Your task to perform on an android device: install app "McDonald's" Image 0: 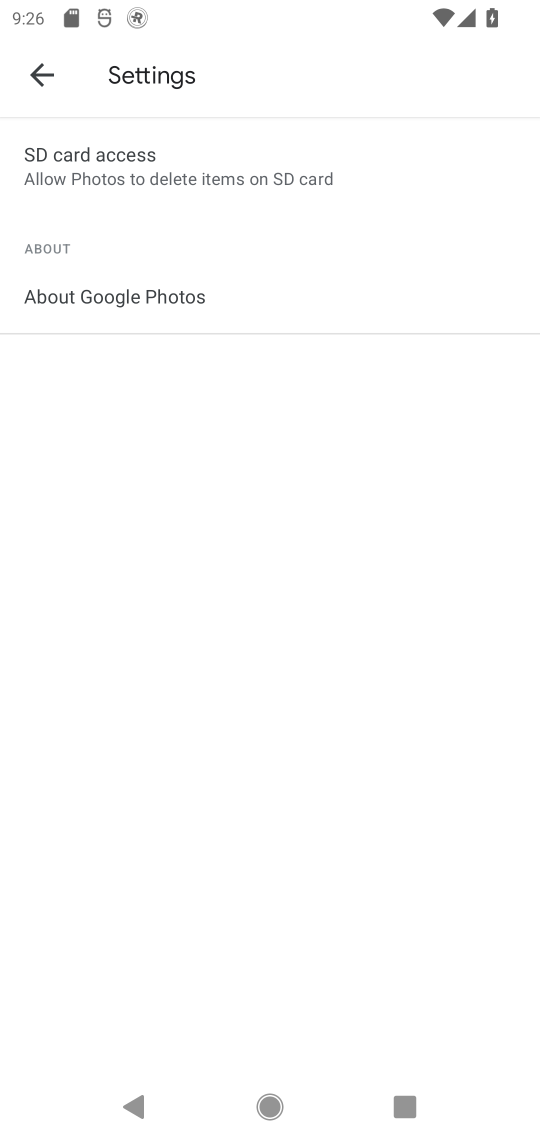
Step 0: press home button
Your task to perform on an android device: install app "McDonald's" Image 1: 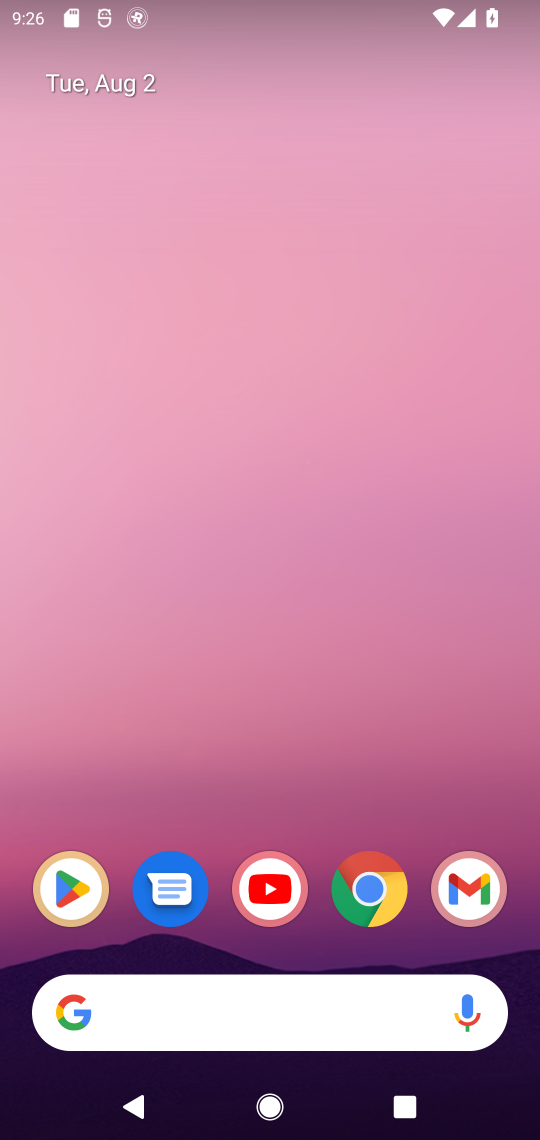
Step 1: click (68, 880)
Your task to perform on an android device: install app "McDonald's" Image 2: 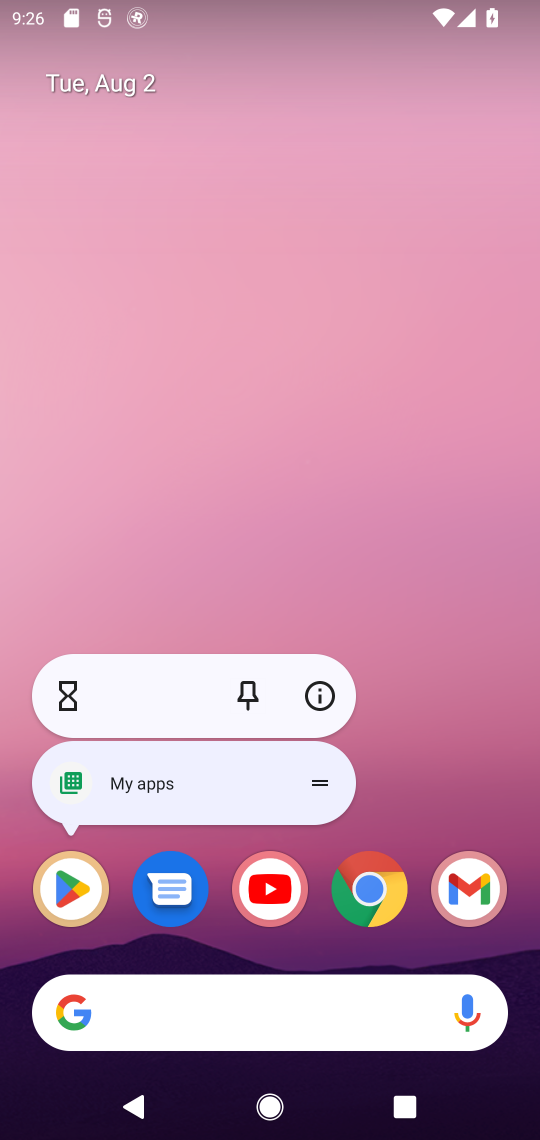
Step 2: click (65, 898)
Your task to perform on an android device: install app "McDonald's" Image 3: 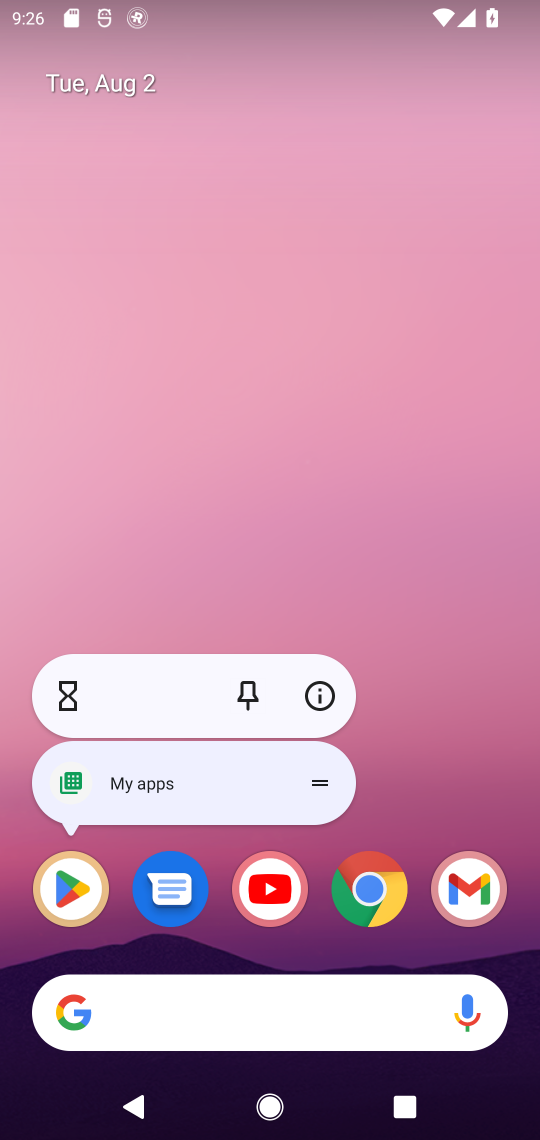
Step 3: click (65, 899)
Your task to perform on an android device: install app "McDonald's" Image 4: 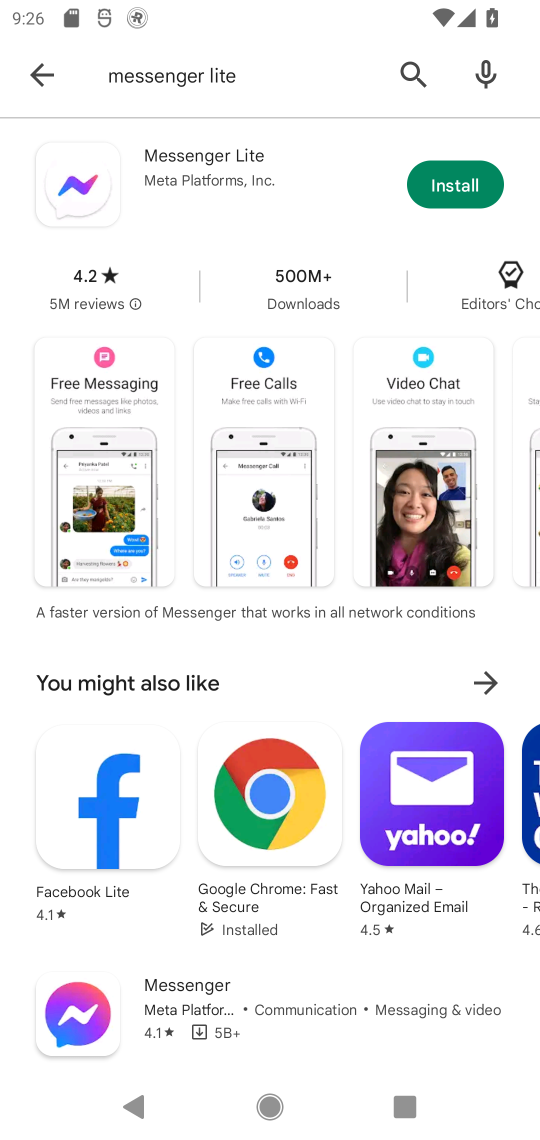
Step 4: click (415, 65)
Your task to perform on an android device: install app "McDonald's" Image 5: 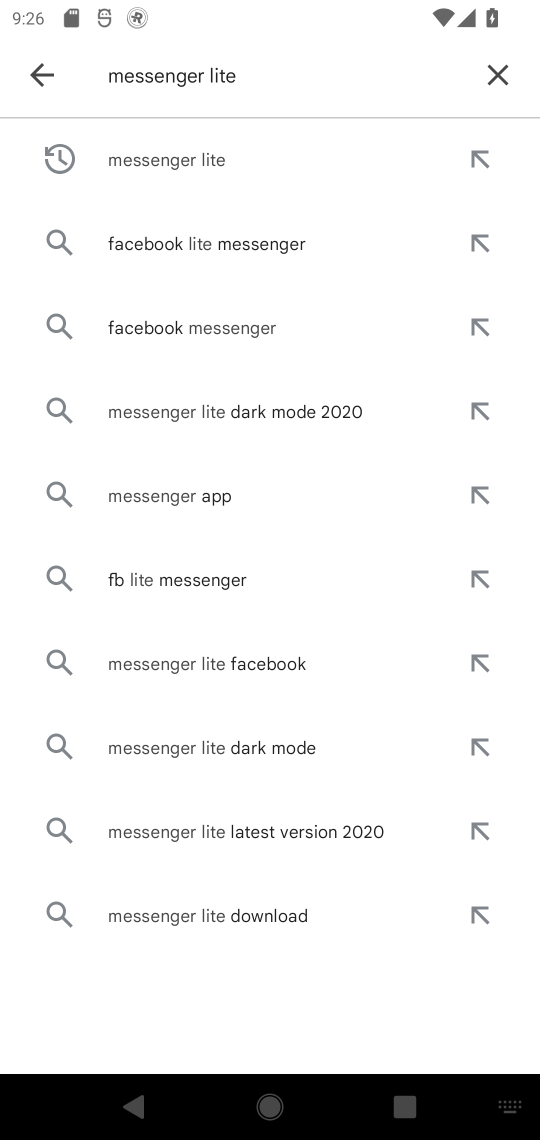
Step 5: click (484, 75)
Your task to perform on an android device: install app "McDonald's" Image 6: 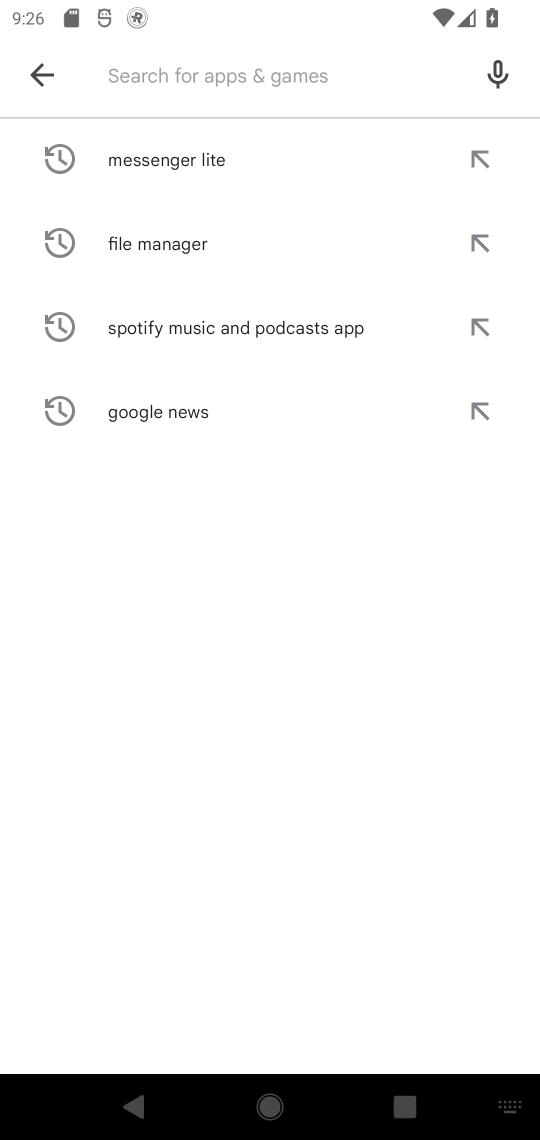
Step 6: type "McDonald's"
Your task to perform on an android device: install app "McDonald's" Image 7: 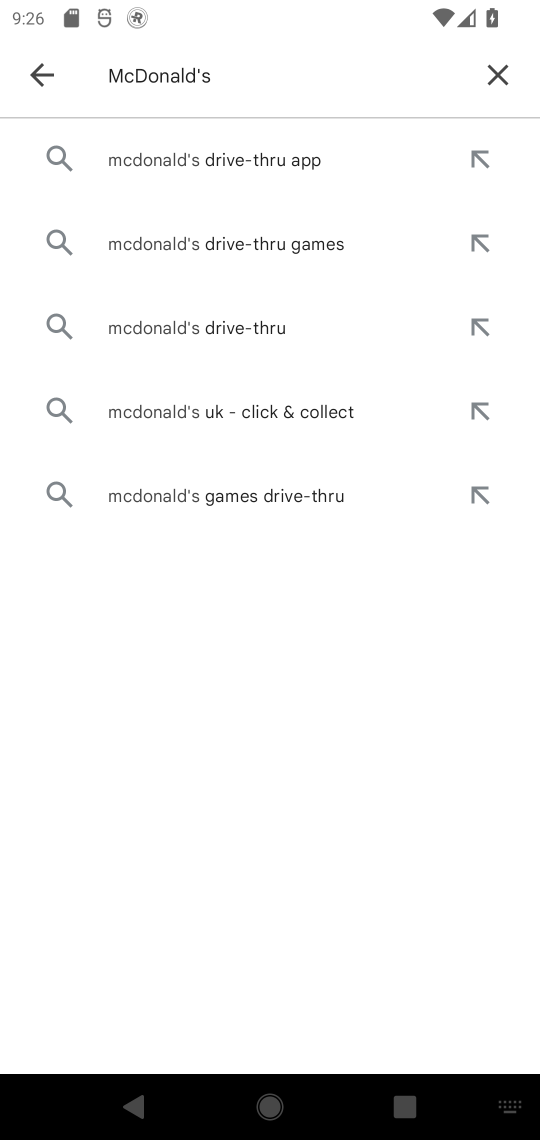
Step 7: click (190, 161)
Your task to perform on an android device: install app "McDonald's" Image 8: 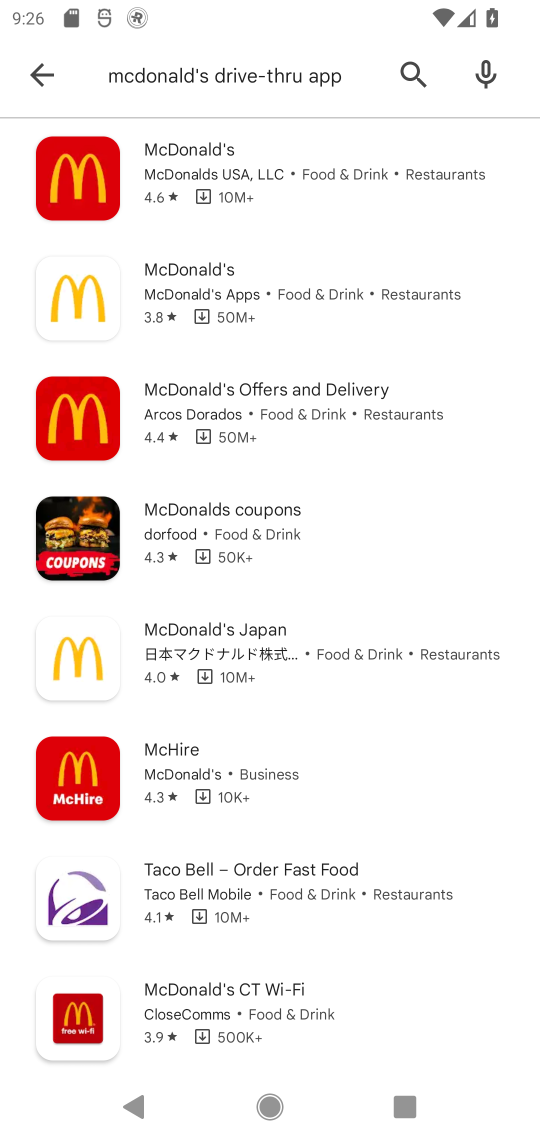
Step 8: click (211, 159)
Your task to perform on an android device: install app "McDonald's" Image 9: 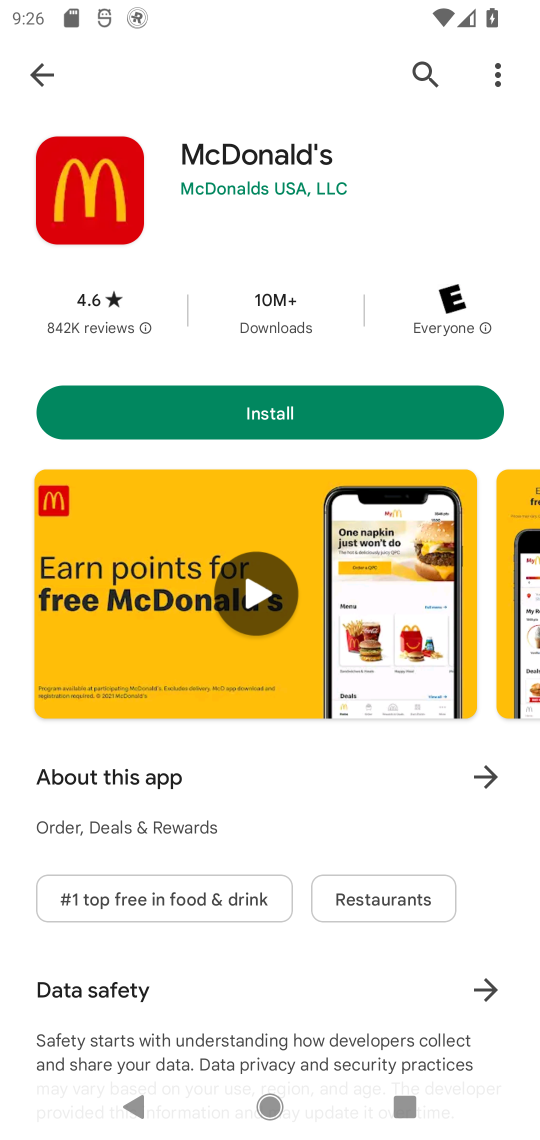
Step 9: click (307, 402)
Your task to perform on an android device: install app "McDonald's" Image 10: 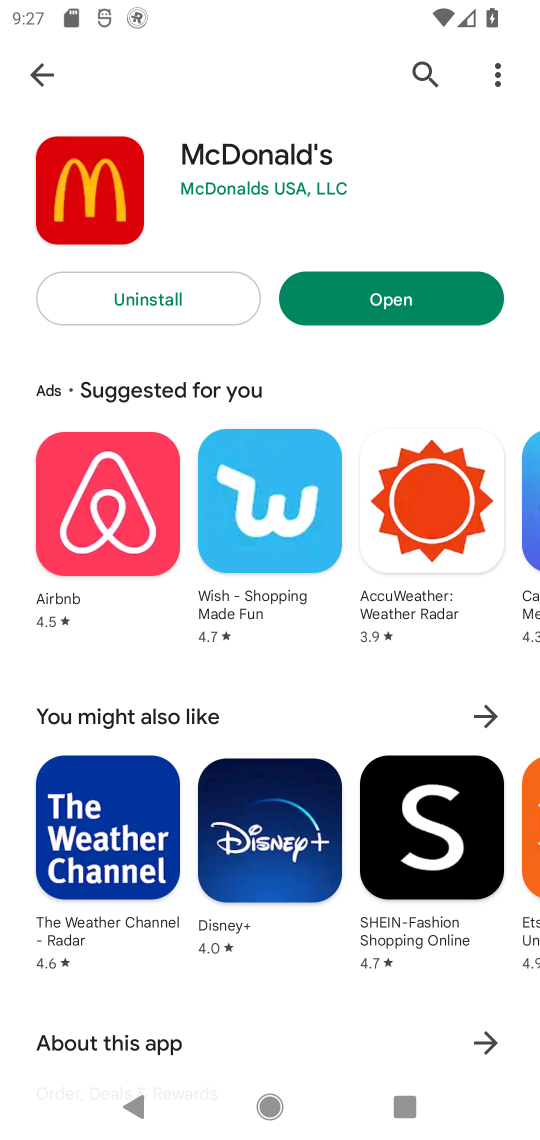
Step 10: task complete